Your task to perform on an android device: check android version Image 0: 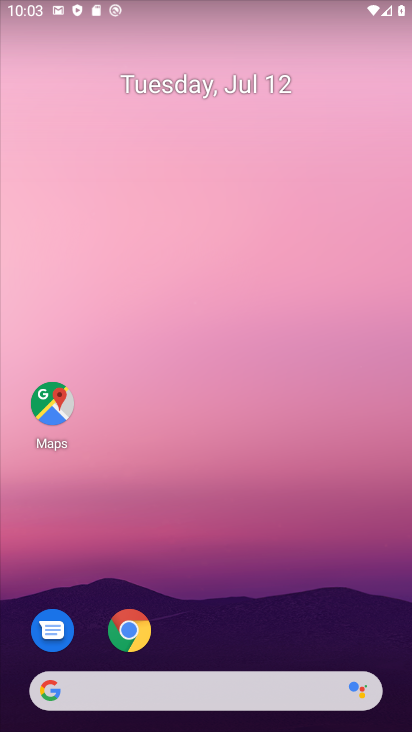
Step 0: drag from (353, 631) to (350, 75)
Your task to perform on an android device: check android version Image 1: 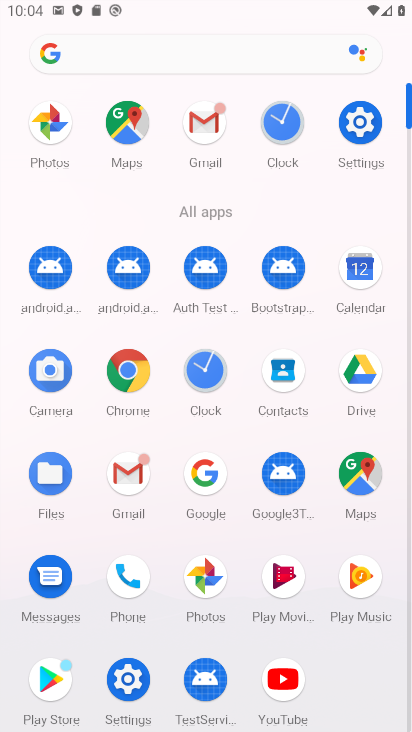
Step 1: click (362, 127)
Your task to perform on an android device: check android version Image 2: 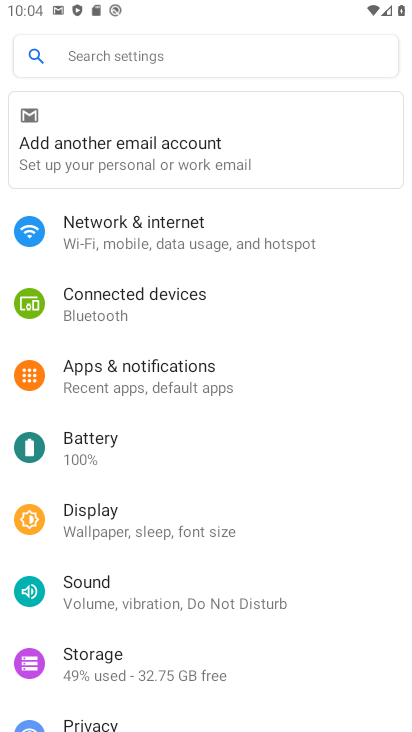
Step 2: drag from (346, 506) to (346, 375)
Your task to perform on an android device: check android version Image 3: 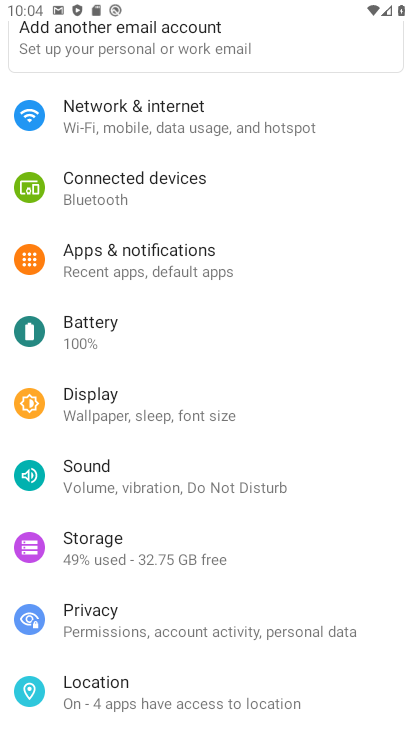
Step 3: drag from (336, 519) to (348, 380)
Your task to perform on an android device: check android version Image 4: 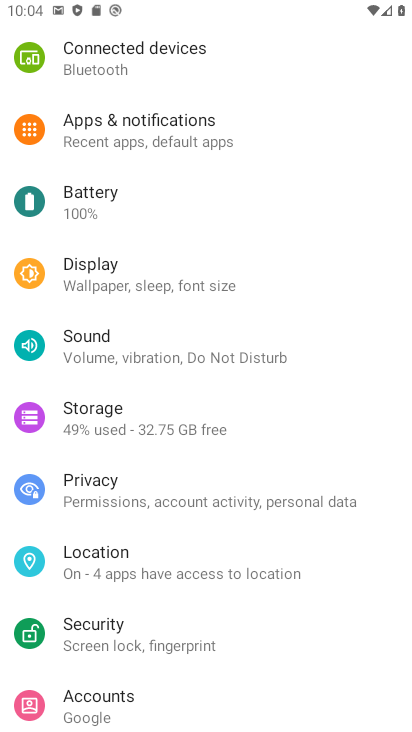
Step 4: drag from (341, 573) to (343, 374)
Your task to perform on an android device: check android version Image 5: 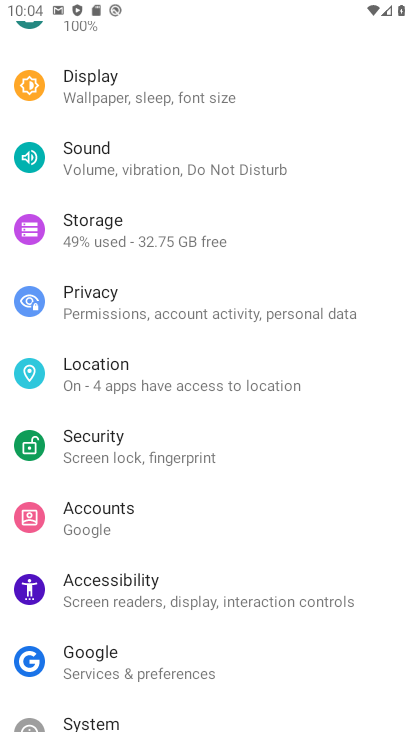
Step 5: drag from (341, 248) to (334, 512)
Your task to perform on an android device: check android version Image 6: 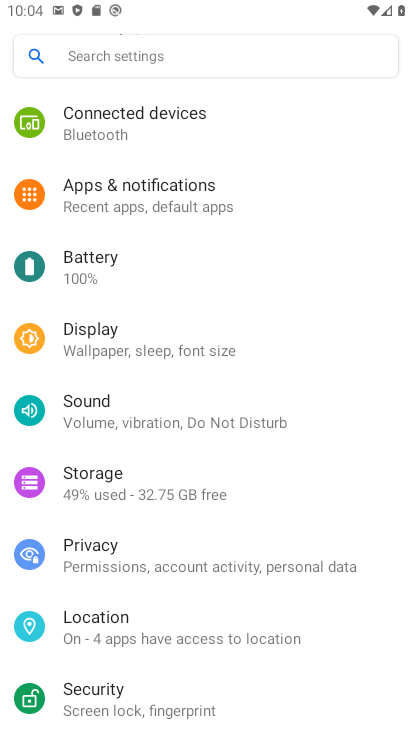
Step 6: drag from (325, 237) to (325, 383)
Your task to perform on an android device: check android version Image 7: 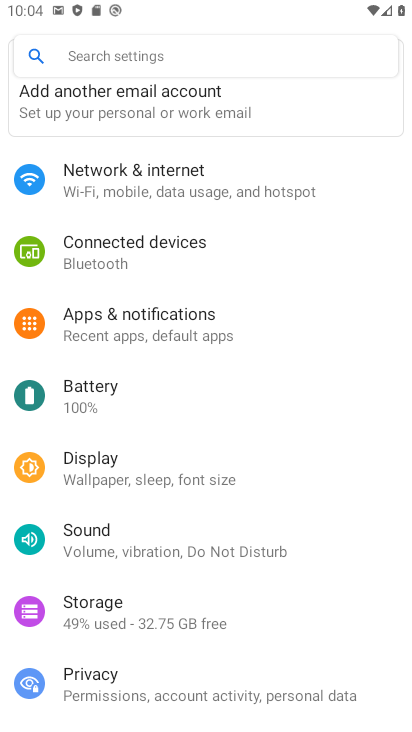
Step 7: drag from (319, 440) to (321, 332)
Your task to perform on an android device: check android version Image 8: 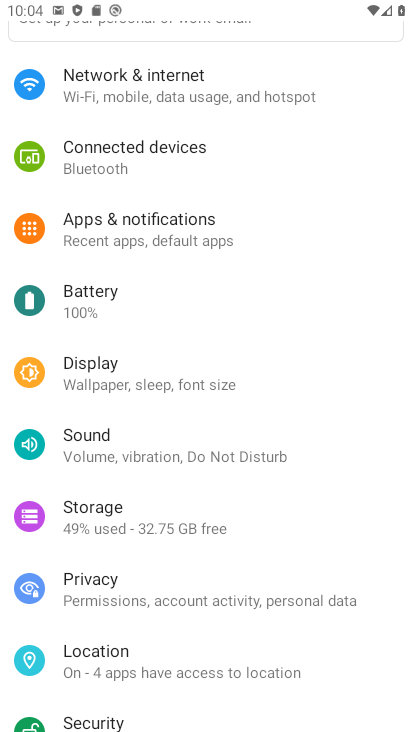
Step 8: drag from (325, 444) to (330, 355)
Your task to perform on an android device: check android version Image 9: 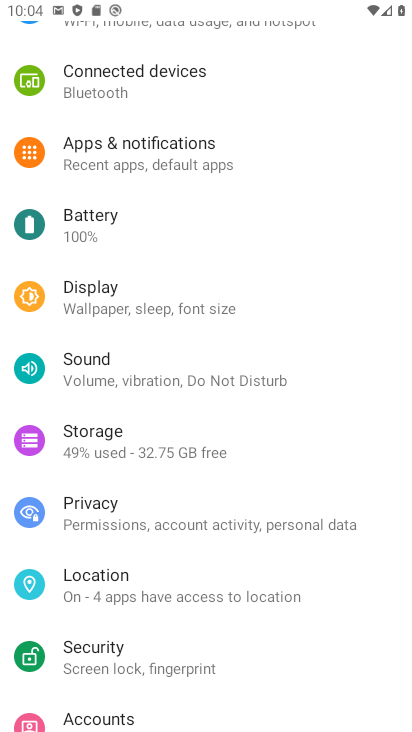
Step 9: drag from (323, 455) to (325, 353)
Your task to perform on an android device: check android version Image 10: 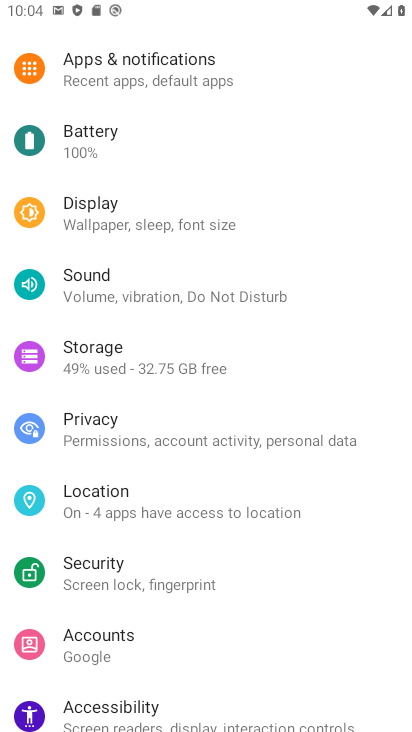
Step 10: drag from (326, 477) to (327, 391)
Your task to perform on an android device: check android version Image 11: 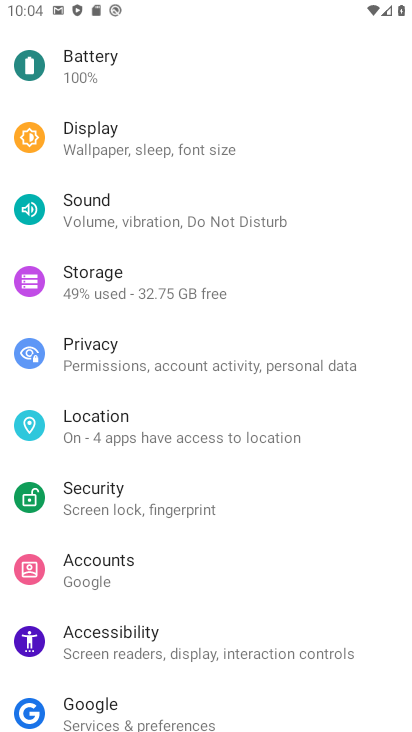
Step 11: drag from (309, 498) to (319, 379)
Your task to perform on an android device: check android version Image 12: 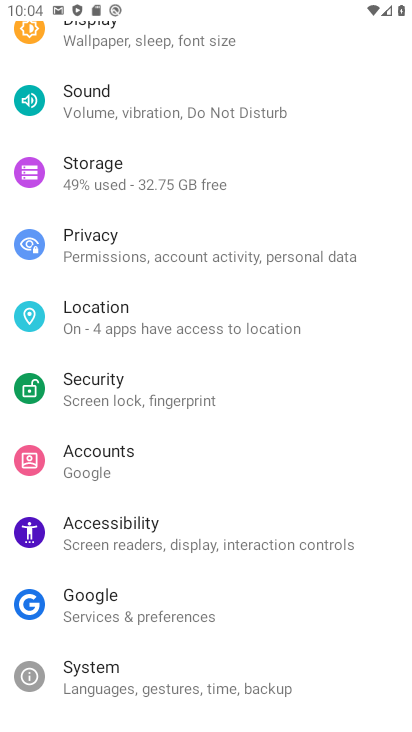
Step 12: drag from (319, 481) to (325, 360)
Your task to perform on an android device: check android version Image 13: 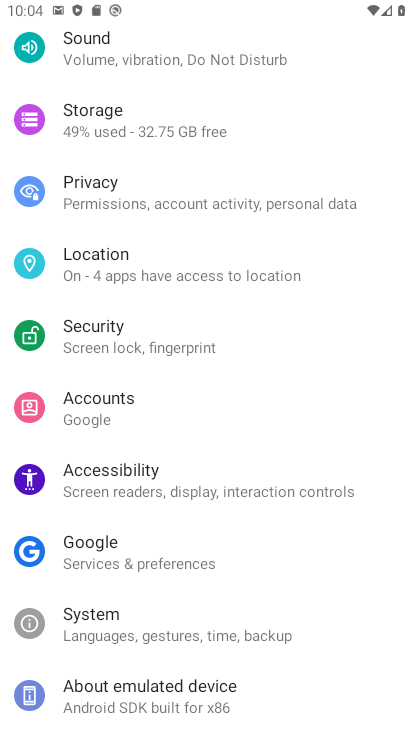
Step 13: click (272, 645)
Your task to perform on an android device: check android version Image 14: 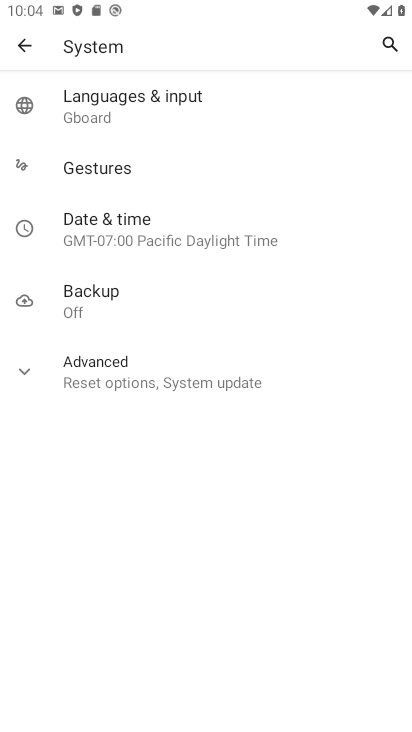
Step 14: click (184, 379)
Your task to perform on an android device: check android version Image 15: 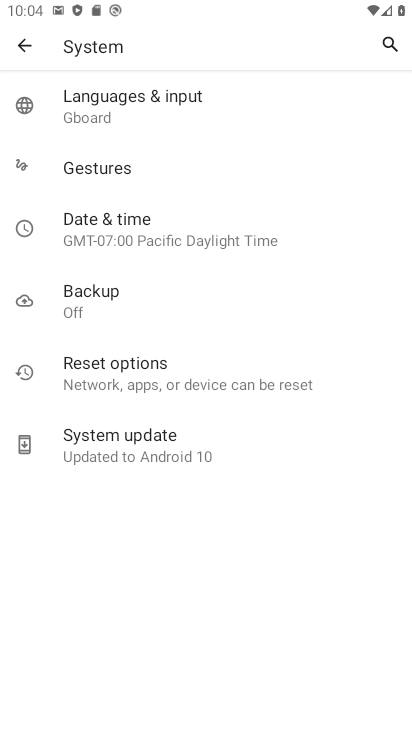
Step 15: click (174, 444)
Your task to perform on an android device: check android version Image 16: 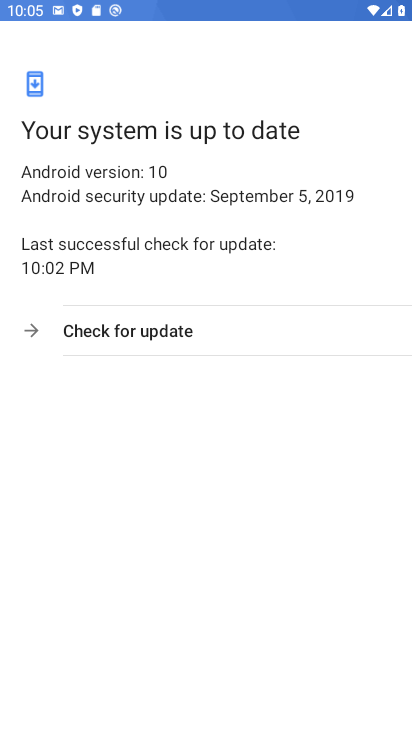
Step 16: task complete